Your task to perform on an android device: Open the calendar and show me this week's events? Image 0: 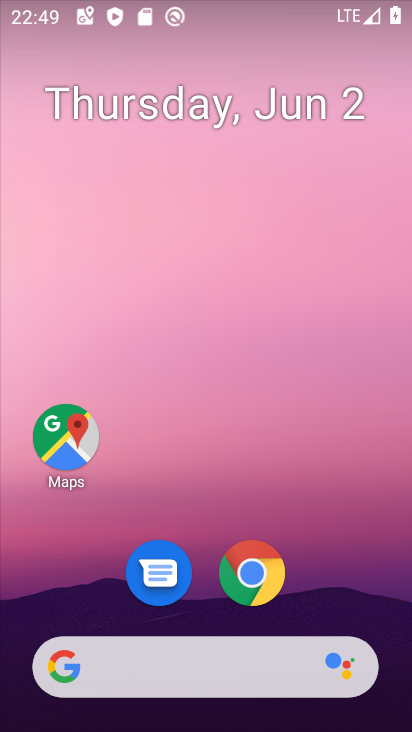
Step 0: click (158, 107)
Your task to perform on an android device: Open the calendar and show me this week's events? Image 1: 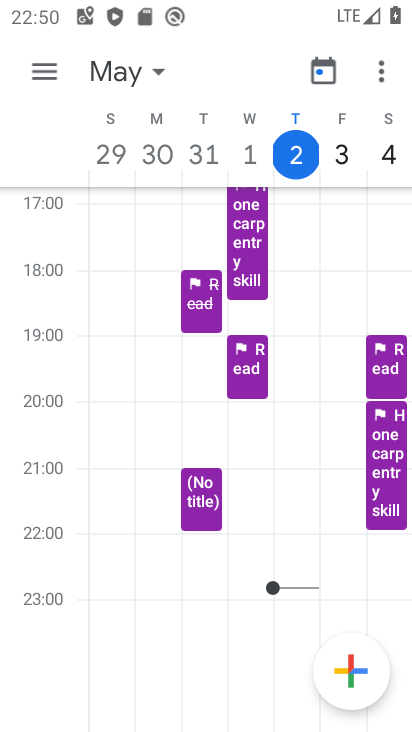
Step 1: task complete